Your task to perform on an android device: Open settings Image 0: 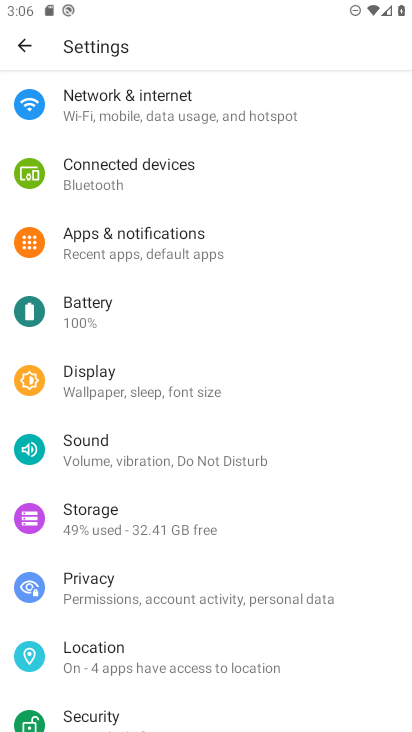
Step 0: task complete